Your task to perform on an android device: Go to location settings Image 0: 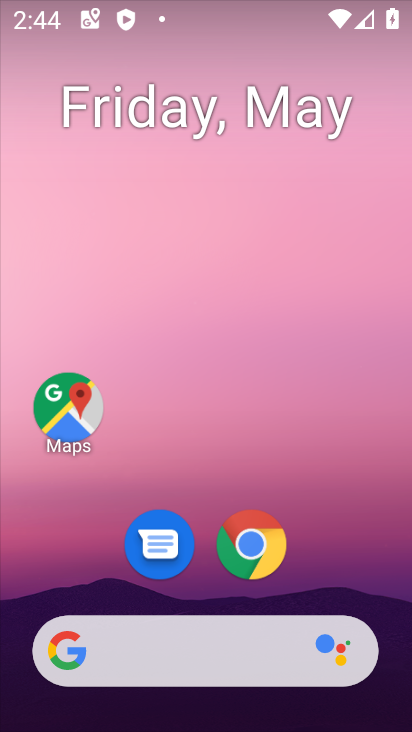
Step 0: drag from (198, 592) to (218, 180)
Your task to perform on an android device: Go to location settings Image 1: 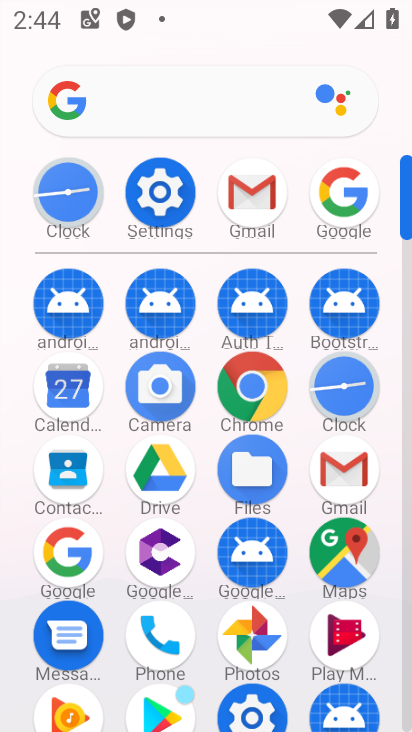
Step 1: click (146, 205)
Your task to perform on an android device: Go to location settings Image 2: 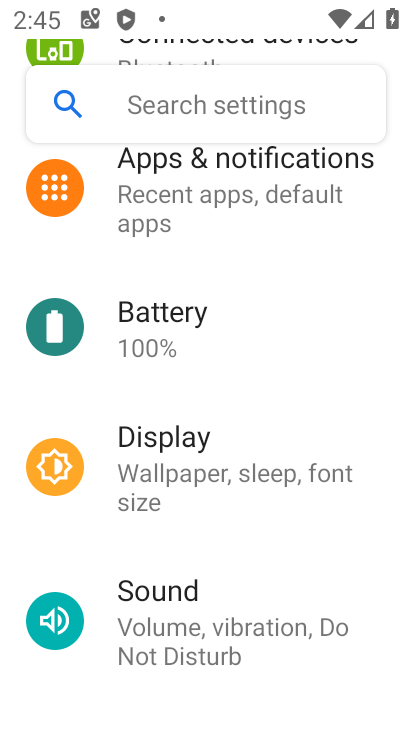
Step 2: drag from (204, 526) to (204, 346)
Your task to perform on an android device: Go to location settings Image 3: 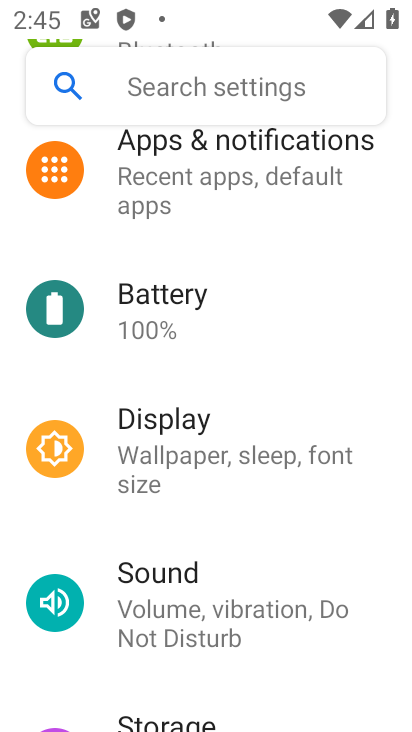
Step 3: drag from (232, 613) to (270, 384)
Your task to perform on an android device: Go to location settings Image 4: 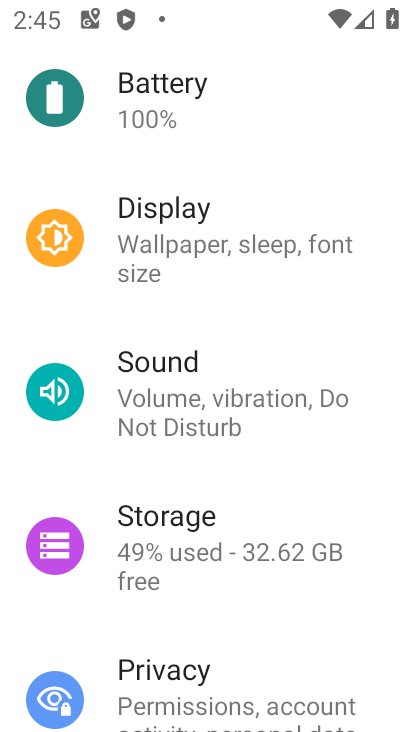
Step 4: drag from (204, 651) to (234, 372)
Your task to perform on an android device: Go to location settings Image 5: 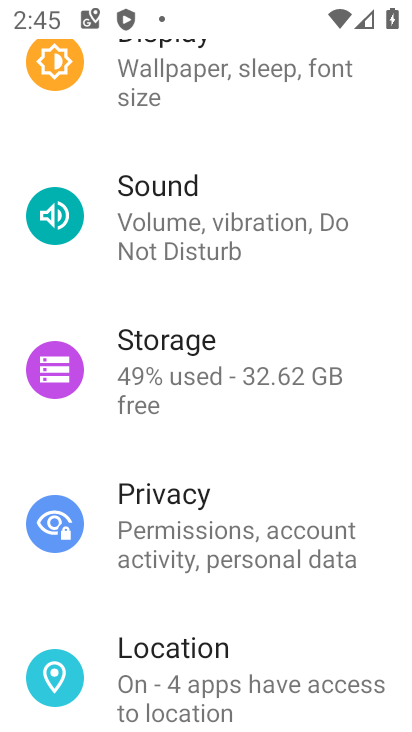
Step 5: click (199, 652)
Your task to perform on an android device: Go to location settings Image 6: 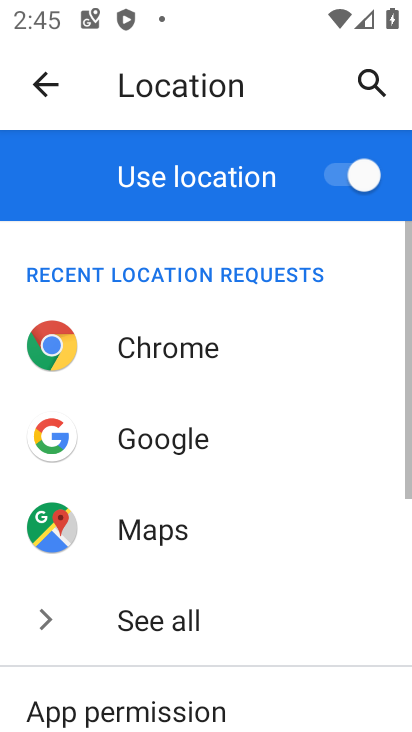
Step 6: task complete